Your task to perform on an android device: Turn off the flashlight Image 0: 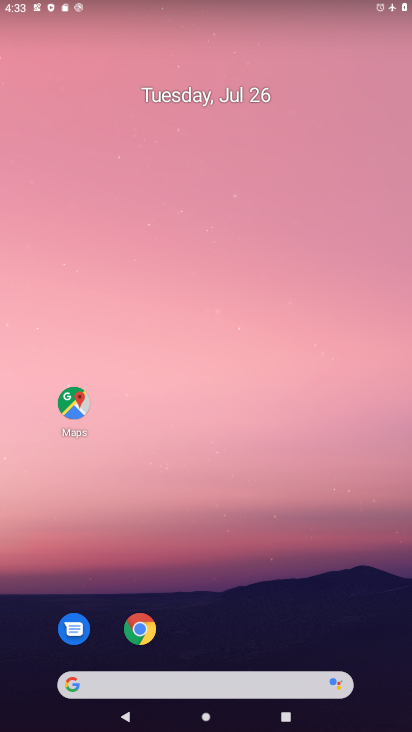
Step 0: drag from (230, 729) to (230, 235)
Your task to perform on an android device: Turn off the flashlight Image 1: 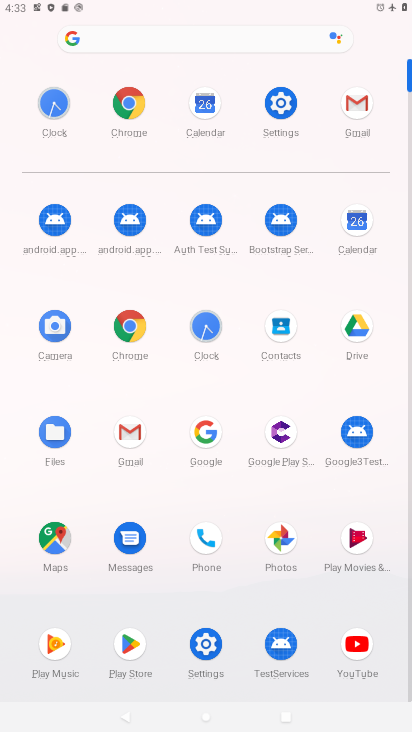
Step 1: click (283, 102)
Your task to perform on an android device: Turn off the flashlight Image 2: 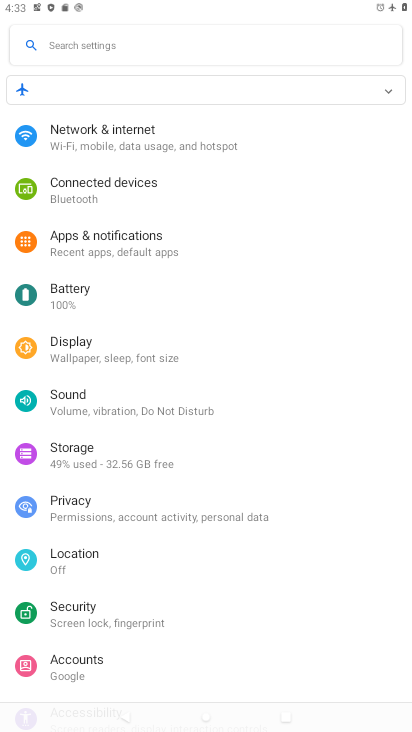
Step 2: task complete